Your task to perform on an android device: Search for the new Nike Air Max 270 on Nike.com Image 0: 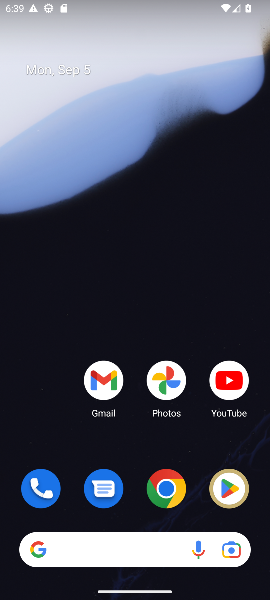
Step 0: click (177, 495)
Your task to perform on an android device: Search for the new Nike Air Max 270 on Nike.com Image 1: 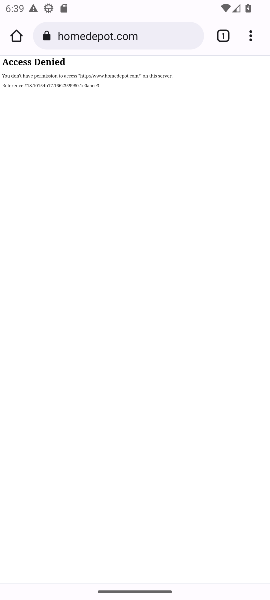
Step 1: click (127, 41)
Your task to perform on an android device: Search for the new Nike Air Max 270 on Nike.com Image 2: 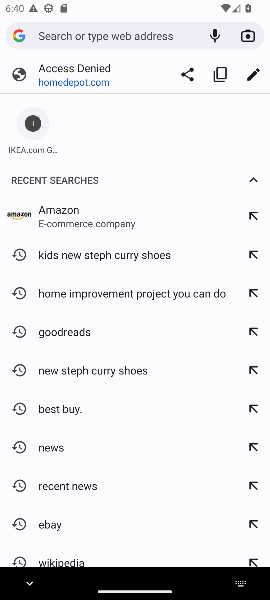
Step 2: type "nike.com"
Your task to perform on an android device: Search for the new Nike Air Max 270 on Nike.com Image 3: 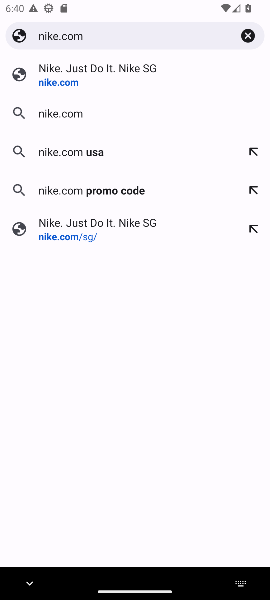
Step 3: press enter
Your task to perform on an android device: Search for the new Nike Air Max 270 on Nike.com Image 4: 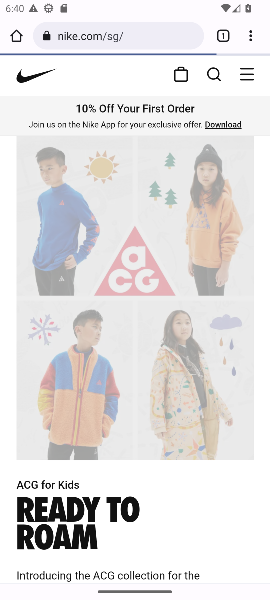
Step 4: click (214, 76)
Your task to perform on an android device: Search for the new Nike Air Max 270 on Nike.com Image 5: 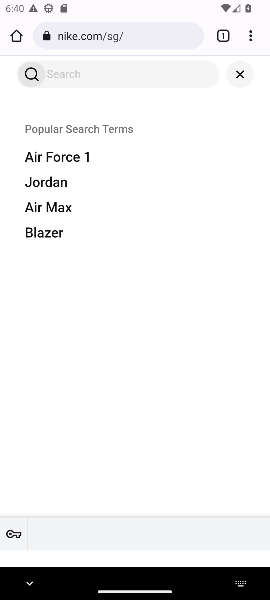
Step 5: click (115, 75)
Your task to perform on an android device: Search for the new Nike Air Max 270 on Nike.com Image 6: 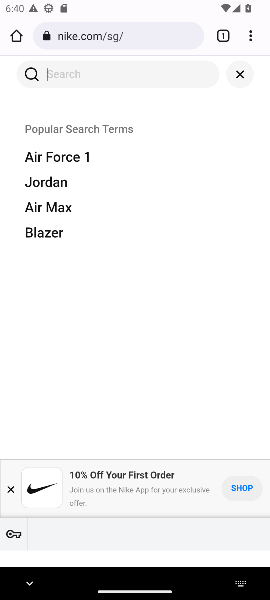
Step 6: type "new nike air max 270"
Your task to perform on an android device: Search for the new Nike Air Max 270 on Nike.com Image 7: 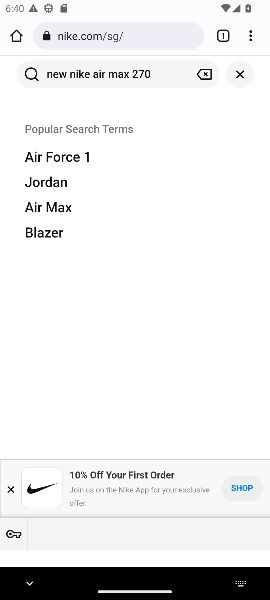
Step 7: press enter
Your task to perform on an android device: Search for the new Nike Air Max 270 on Nike.com Image 8: 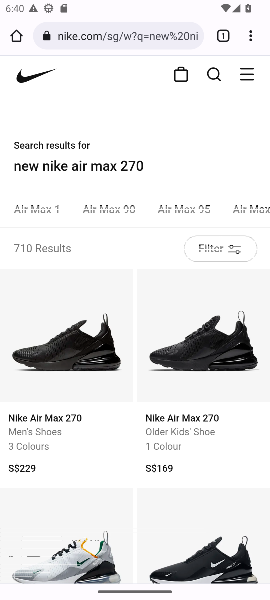
Step 8: task complete